Your task to perform on an android device: turn on showing notifications on the lock screen Image 0: 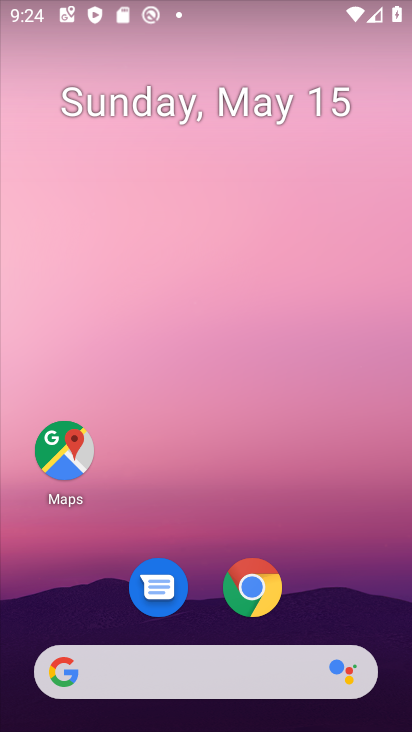
Step 0: drag from (369, 608) to (261, 66)
Your task to perform on an android device: turn on showing notifications on the lock screen Image 1: 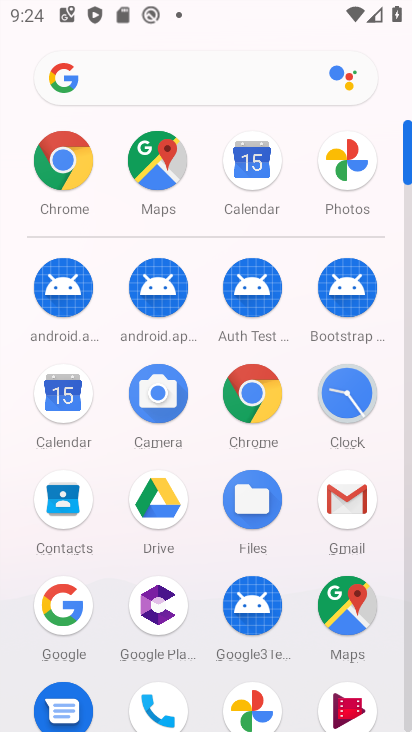
Step 1: drag from (190, 663) to (193, 113)
Your task to perform on an android device: turn on showing notifications on the lock screen Image 2: 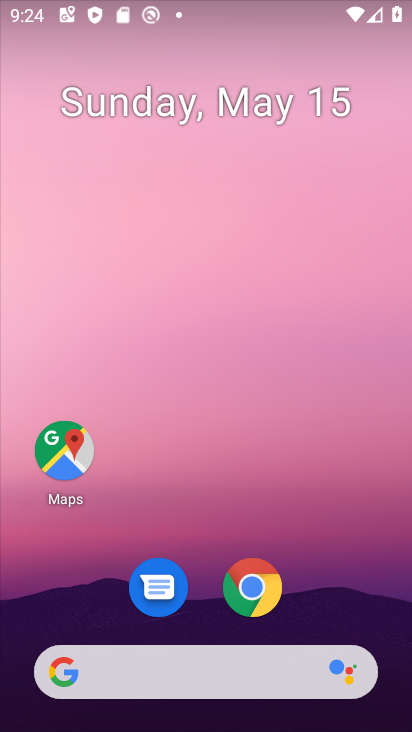
Step 2: drag from (331, 268) to (312, 137)
Your task to perform on an android device: turn on showing notifications on the lock screen Image 3: 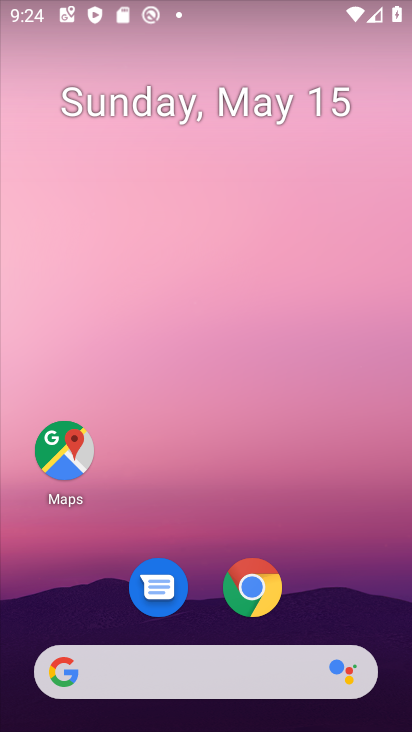
Step 3: drag from (360, 611) to (231, 12)
Your task to perform on an android device: turn on showing notifications on the lock screen Image 4: 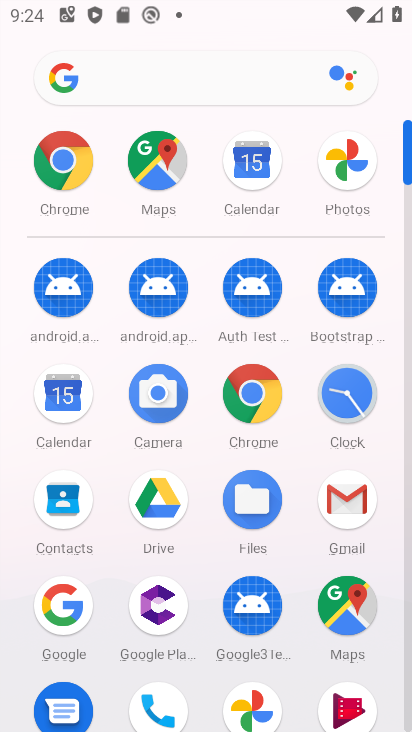
Step 4: drag from (310, 657) to (293, 126)
Your task to perform on an android device: turn on showing notifications on the lock screen Image 5: 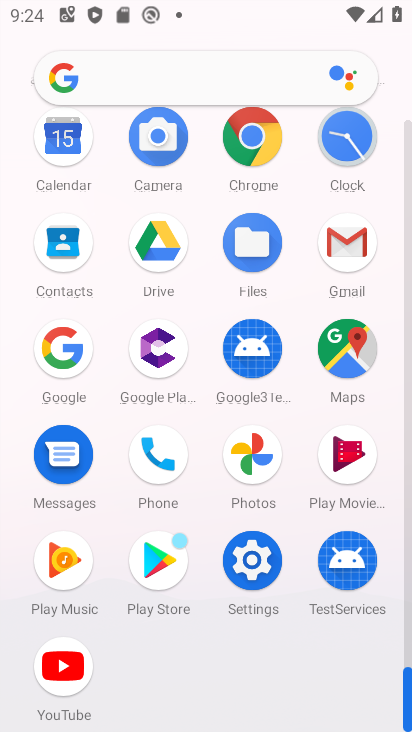
Step 5: click (237, 583)
Your task to perform on an android device: turn on showing notifications on the lock screen Image 6: 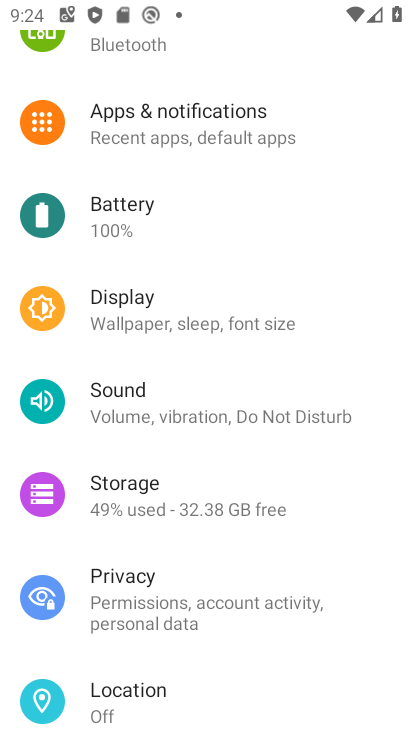
Step 6: click (220, 134)
Your task to perform on an android device: turn on showing notifications on the lock screen Image 7: 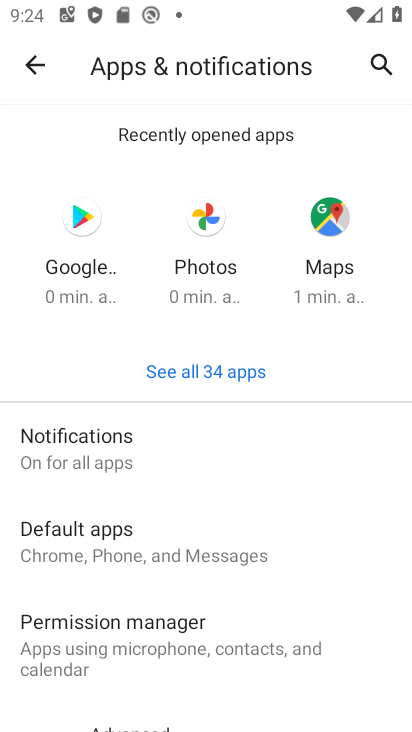
Step 7: click (246, 456)
Your task to perform on an android device: turn on showing notifications on the lock screen Image 8: 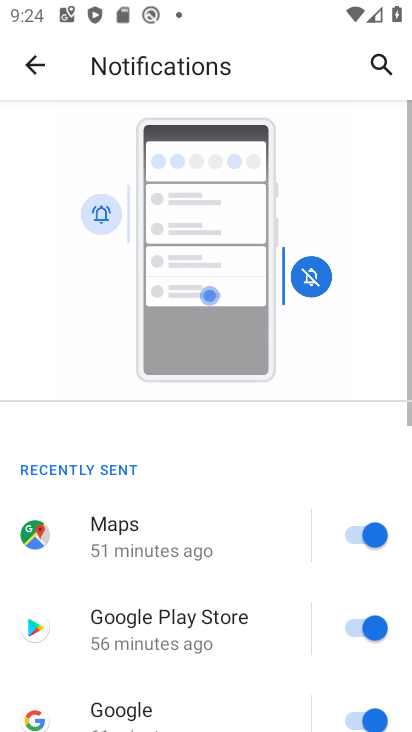
Step 8: drag from (194, 649) to (198, 90)
Your task to perform on an android device: turn on showing notifications on the lock screen Image 9: 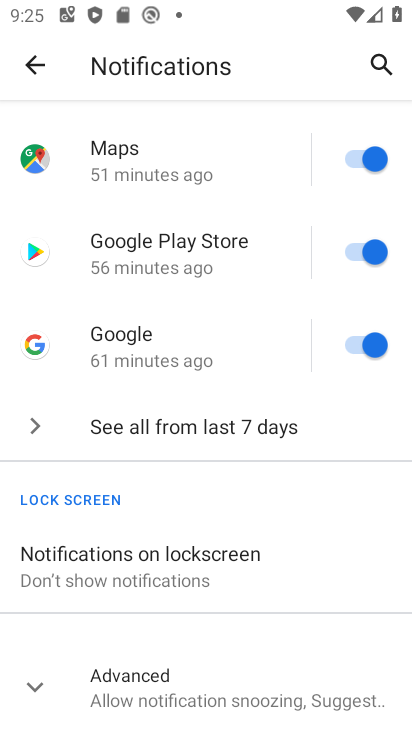
Step 9: click (217, 578)
Your task to perform on an android device: turn on showing notifications on the lock screen Image 10: 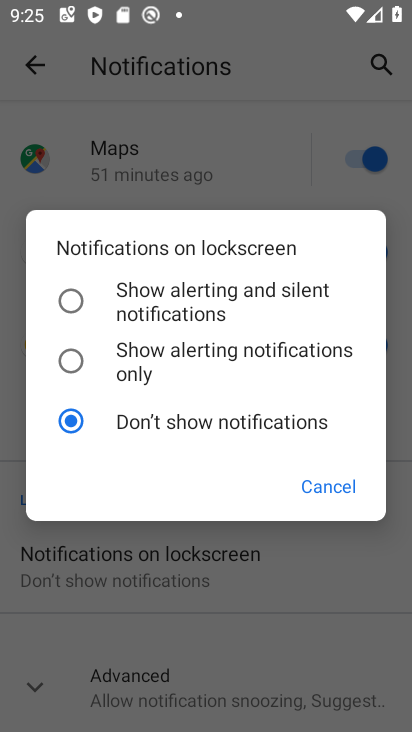
Step 10: click (93, 298)
Your task to perform on an android device: turn on showing notifications on the lock screen Image 11: 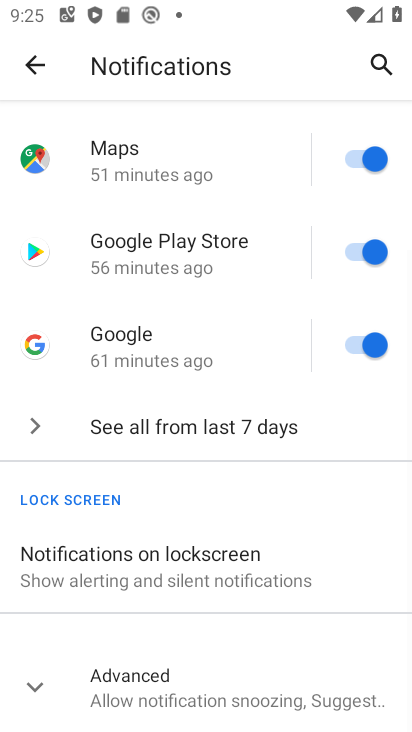
Step 11: task complete